Your task to perform on an android device: Turn off the flashlight Image 0: 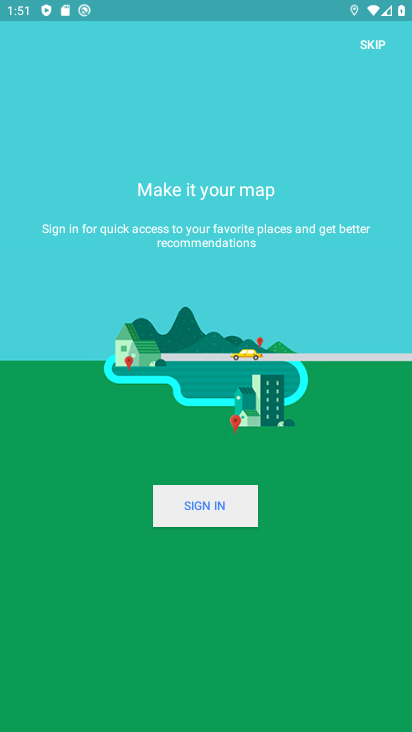
Step 0: press home button
Your task to perform on an android device: Turn off the flashlight Image 1: 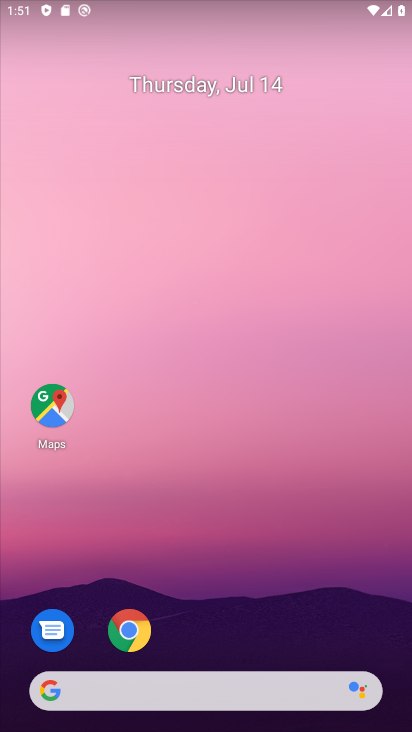
Step 1: task complete